Your task to perform on an android device: Go to battery settings Image 0: 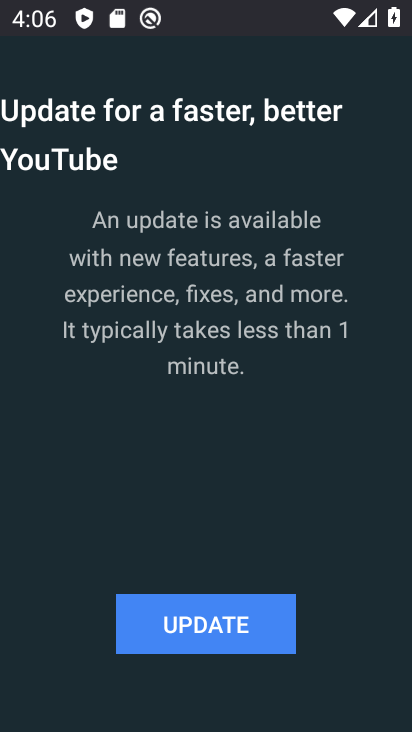
Step 0: press home button
Your task to perform on an android device: Go to battery settings Image 1: 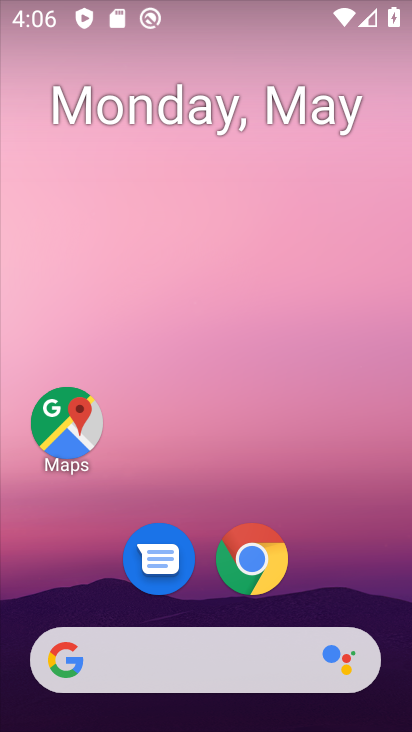
Step 1: drag from (293, 688) to (362, 3)
Your task to perform on an android device: Go to battery settings Image 2: 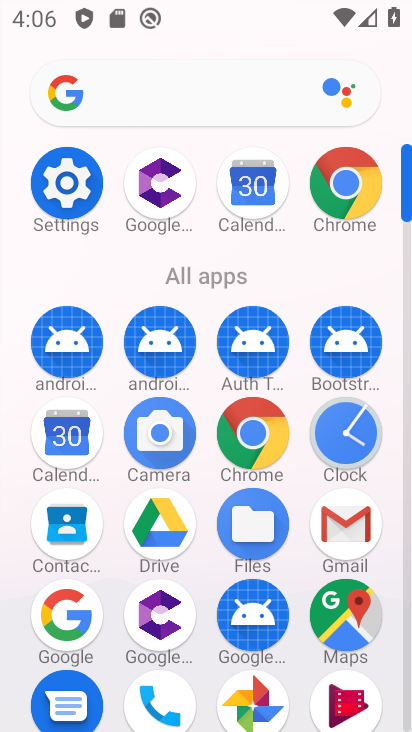
Step 2: click (70, 181)
Your task to perform on an android device: Go to battery settings Image 3: 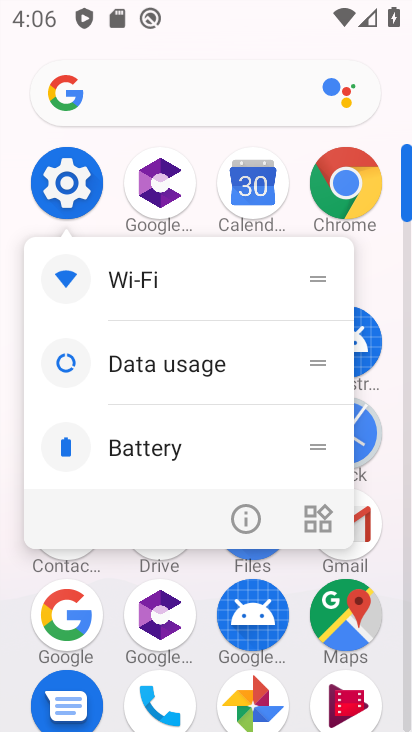
Step 3: click (70, 181)
Your task to perform on an android device: Go to battery settings Image 4: 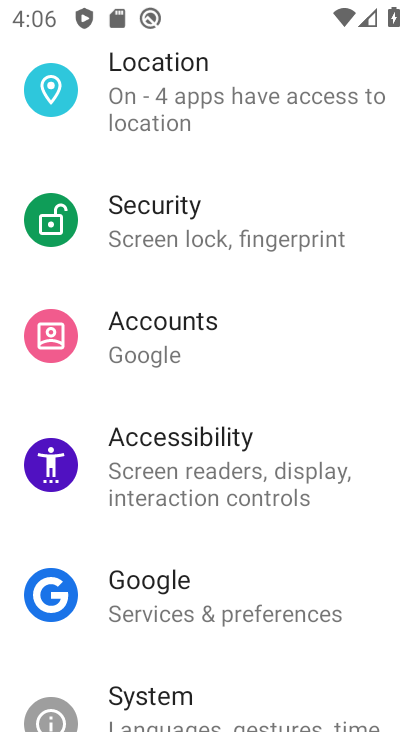
Step 4: drag from (237, 244) to (202, 573)
Your task to perform on an android device: Go to battery settings Image 5: 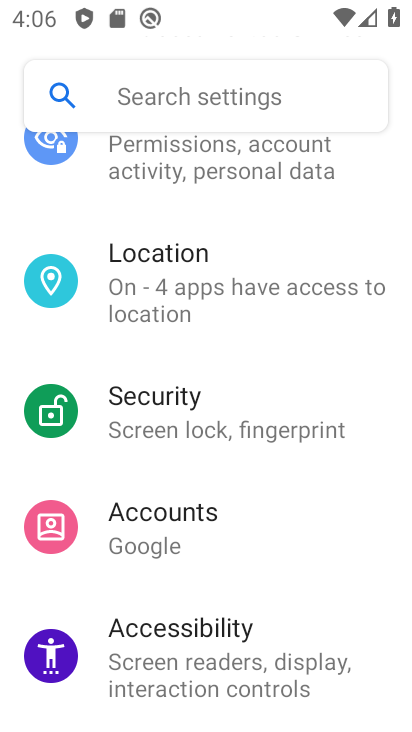
Step 5: drag from (292, 236) to (284, 677)
Your task to perform on an android device: Go to battery settings Image 6: 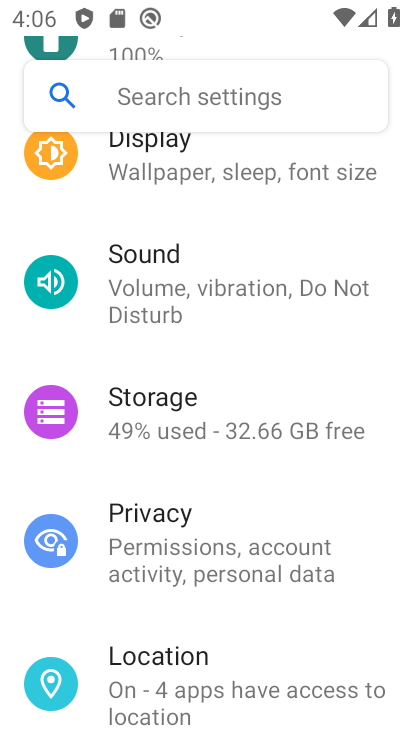
Step 6: drag from (234, 167) to (298, 571)
Your task to perform on an android device: Go to battery settings Image 7: 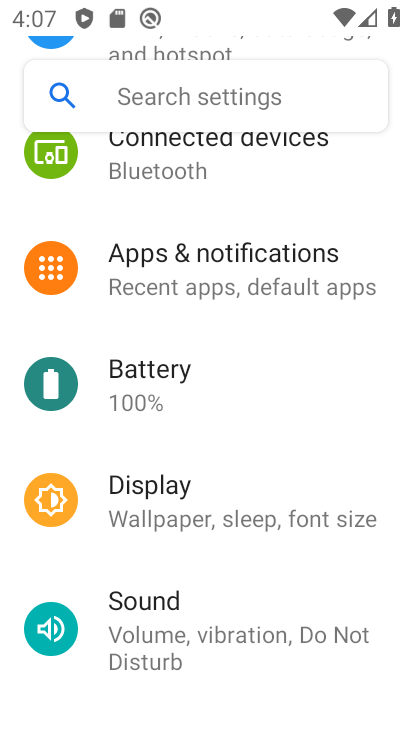
Step 7: drag from (136, 173) to (407, 529)
Your task to perform on an android device: Go to battery settings Image 8: 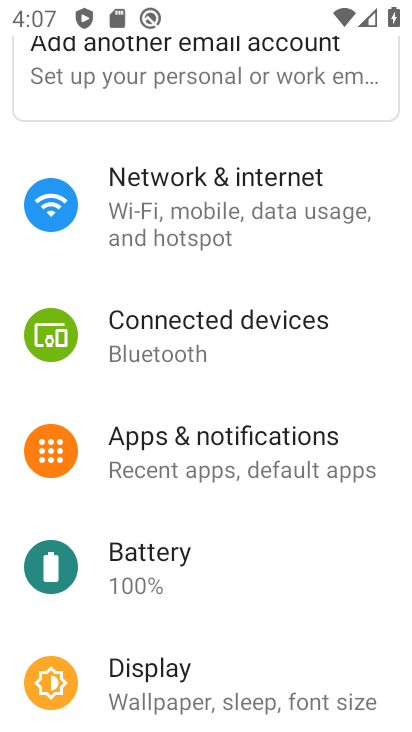
Step 8: click (200, 585)
Your task to perform on an android device: Go to battery settings Image 9: 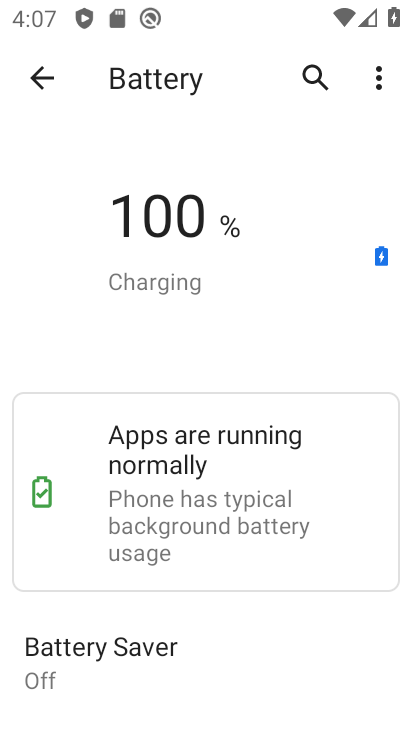
Step 9: task complete